Your task to perform on an android device: toggle translation in the chrome app Image 0: 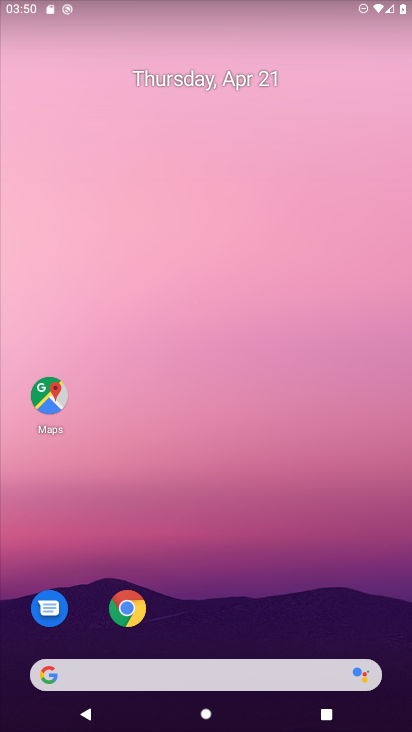
Step 0: drag from (217, 407) to (238, 185)
Your task to perform on an android device: toggle translation in the chrome app Image 1: 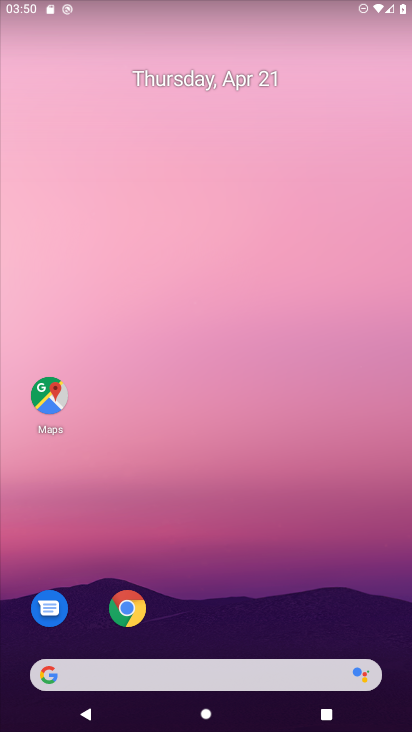
Step 1: drag from (224, 605) to (278, 177)
Your task to perform on an android device: toggle translation in the chrome app Image 2: 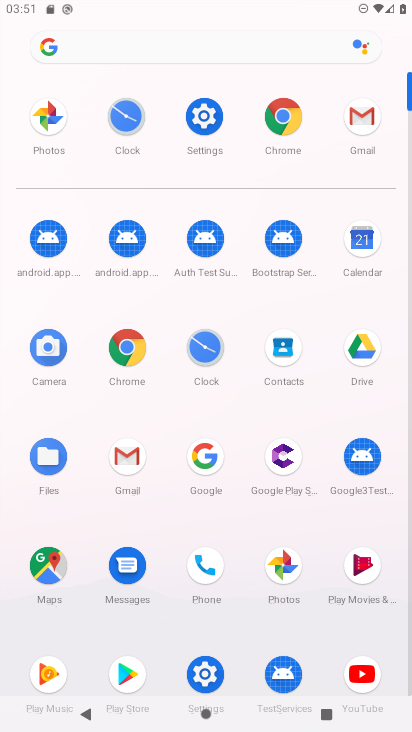
Step 2: click (294, 110)
Your task to perform on an android device: toggle translation in the chrome app Image 3: 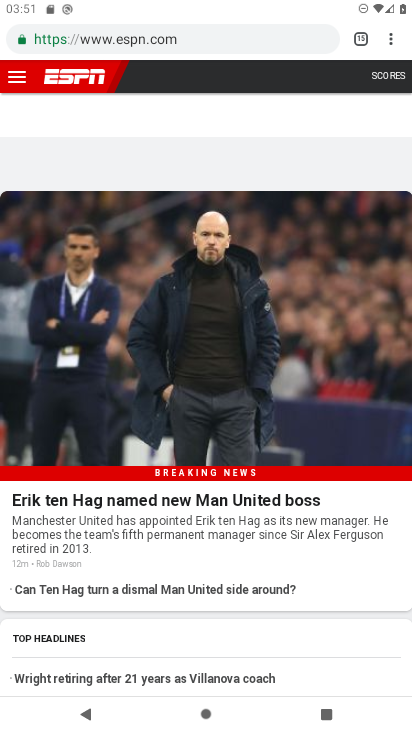
Step 3: click (385, 38)
Your task to perform on an android device: toggle translation in the chrome app Image 4: 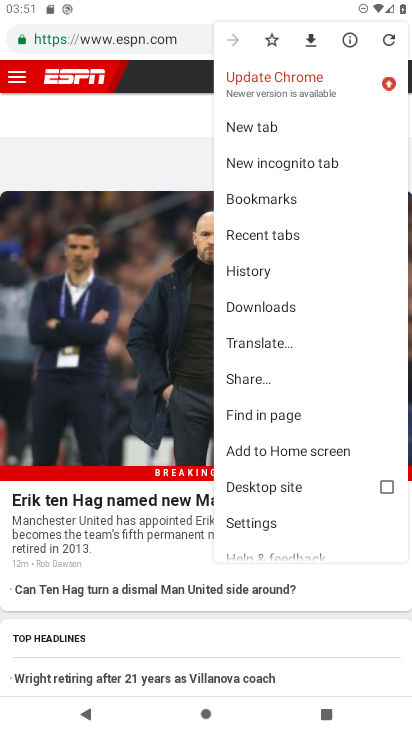
Step 4: click (271, 522)
Your task to perform on an android device: toggle translation in the chrome app Image 5: 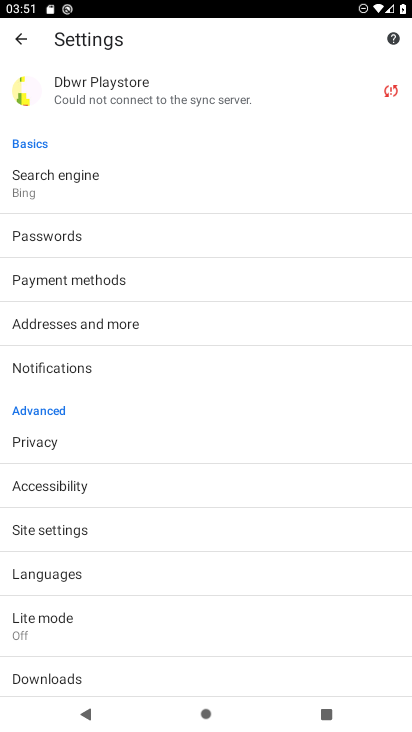
Step 5: click (90, 573)
Your task to perform on an android device: toggle translation in the chrome app Image 6: 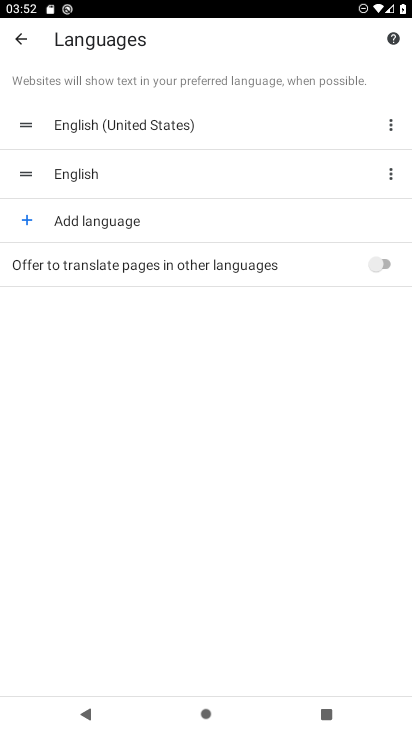
Step 6: click (386, 259)
Your task to perform on an android device: toggle translation in the chrome app Image 7: 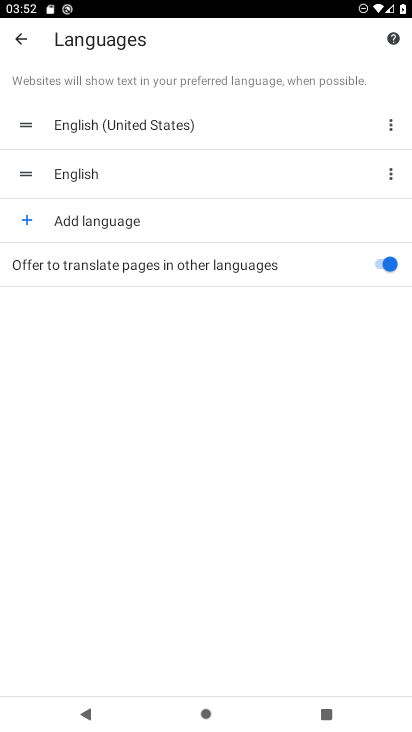
Step 7: task complete